Your task to perform on an android device: What is the news today? Image 0: 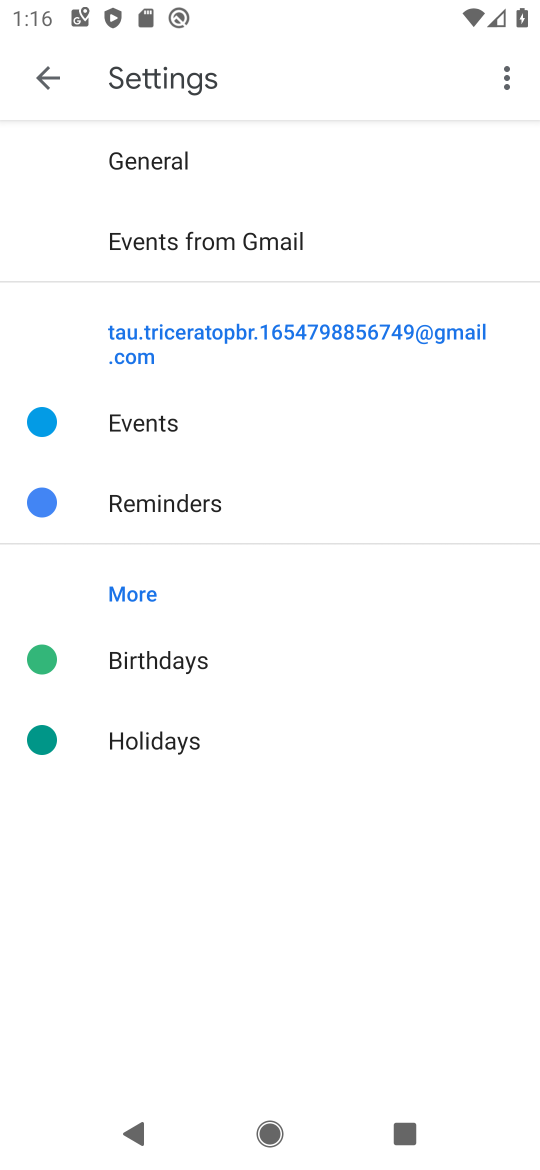
Step 0: press home button
Your task to perform on an android device: What is the news today? Image 1: 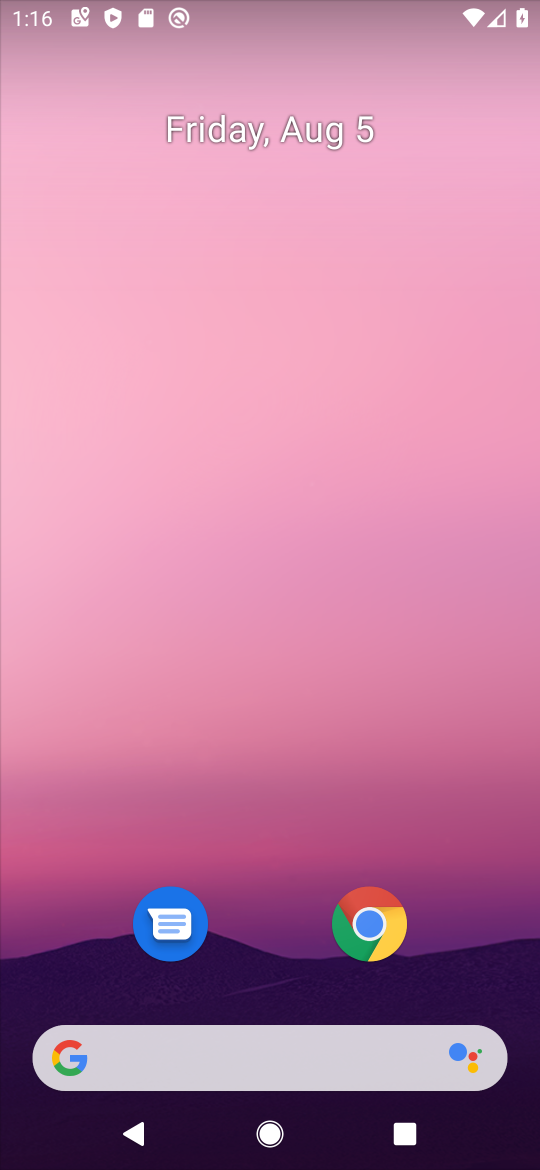
Step 1: drag from (235, 1048) to (292, 244)
Your task to perform on an android device: What is the news today? Image 2: 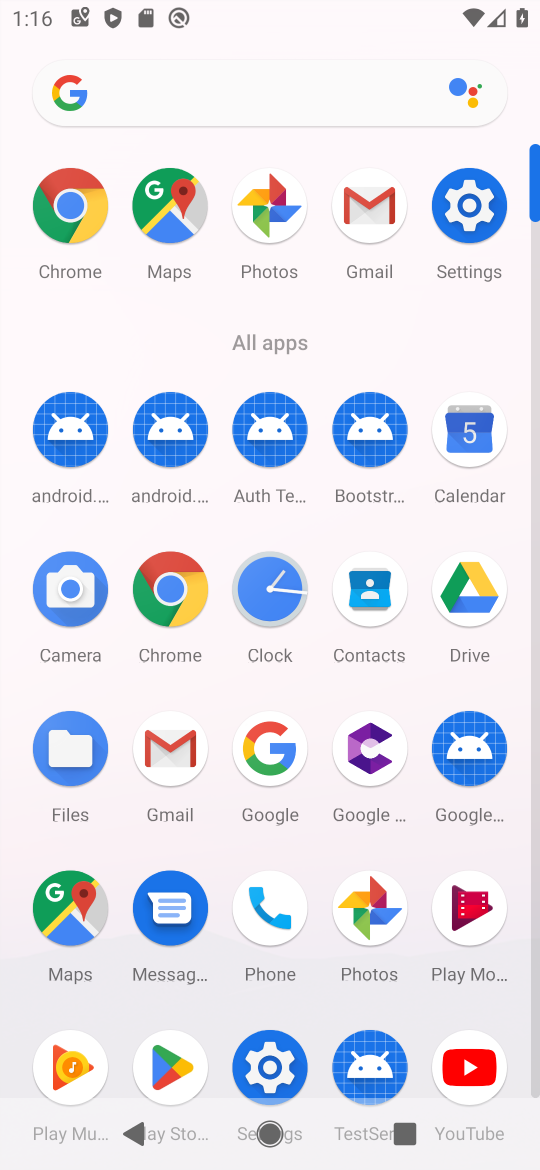
Step 2: click (266, 747)
Your task to perform on an android device: What is the news today? Image 3: 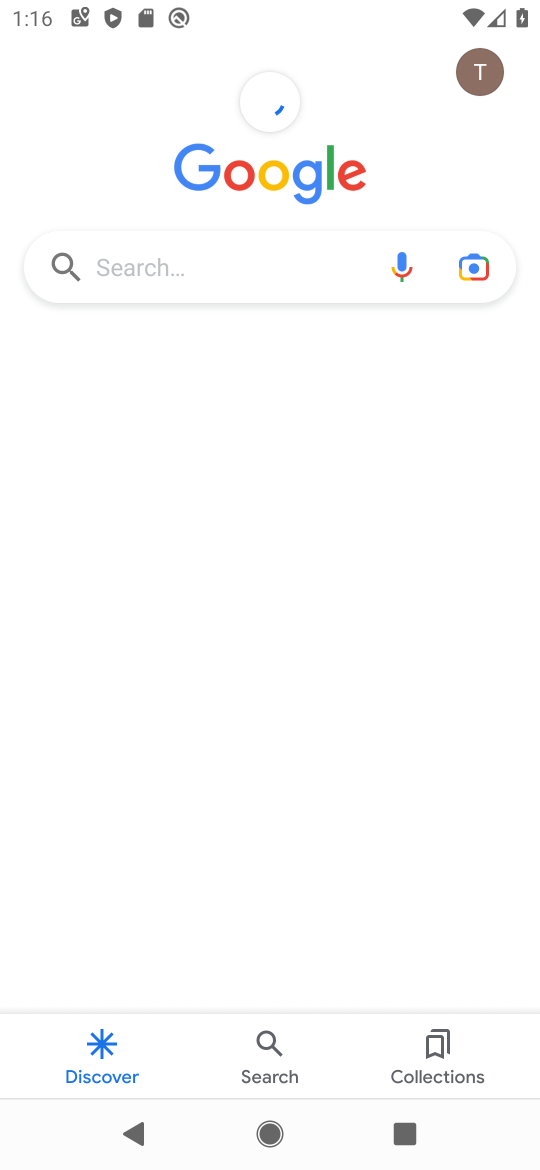
Step 3: click (281, 256)
Your task to perform on an android device: What is the news today? Image 4: 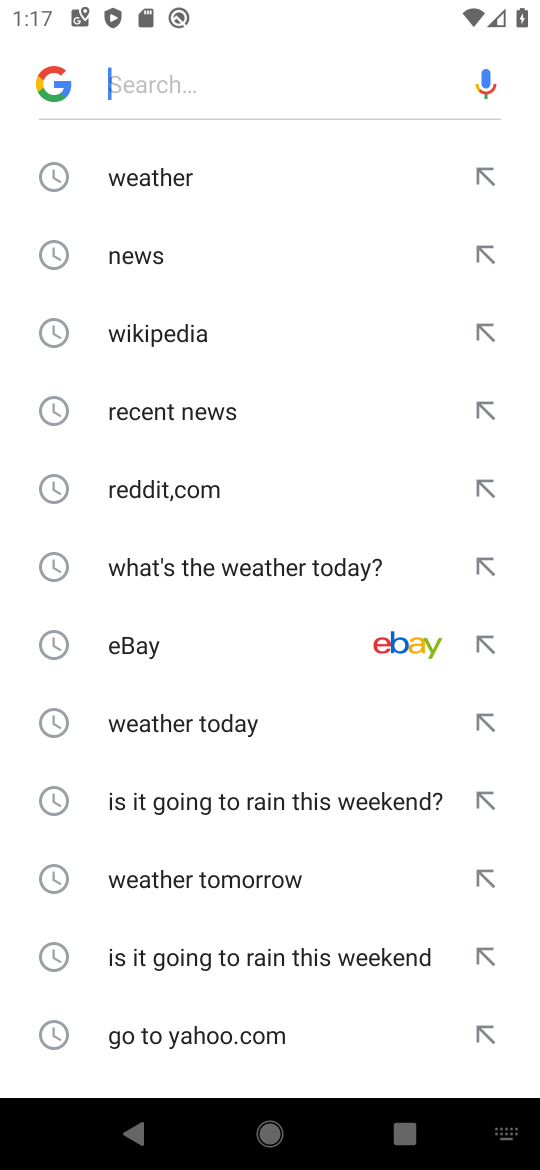
Step 4: type "news today"
Your task to perform on an android device: What is the news today? Image 5: 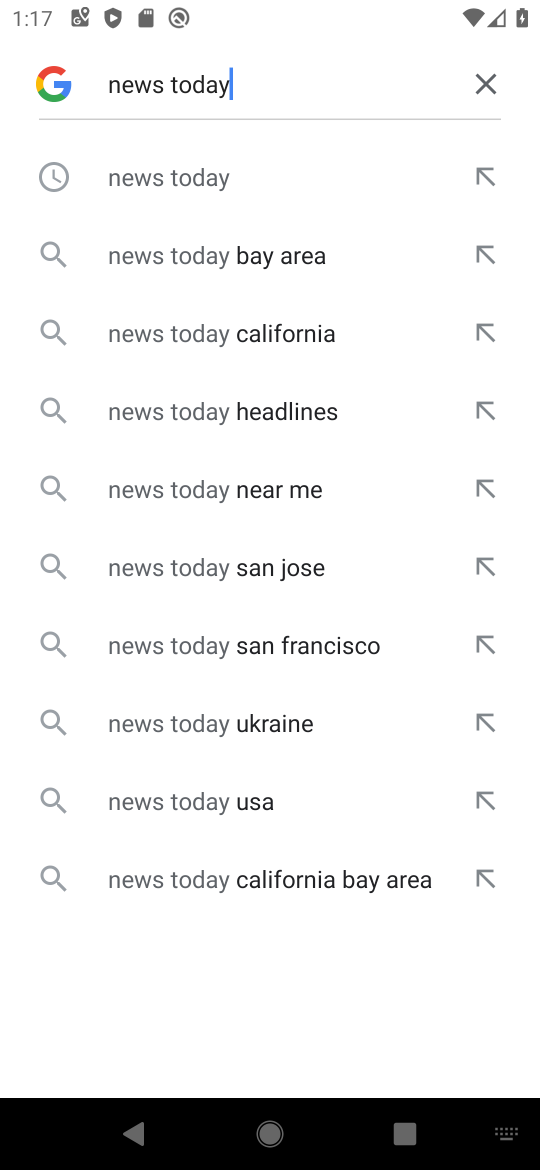
Step 5: click (195, 182)
Your task to perform on an android device: What is the news today? Image 6: 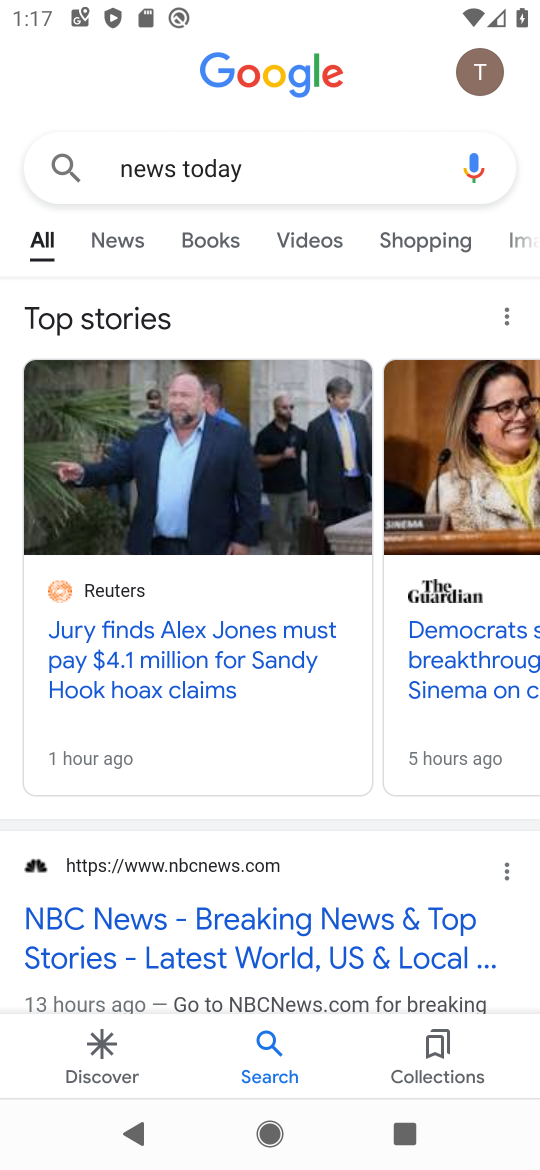
Step 6: click (236, 624)
Your task to perform on an android device: What is the news today? Image 7: 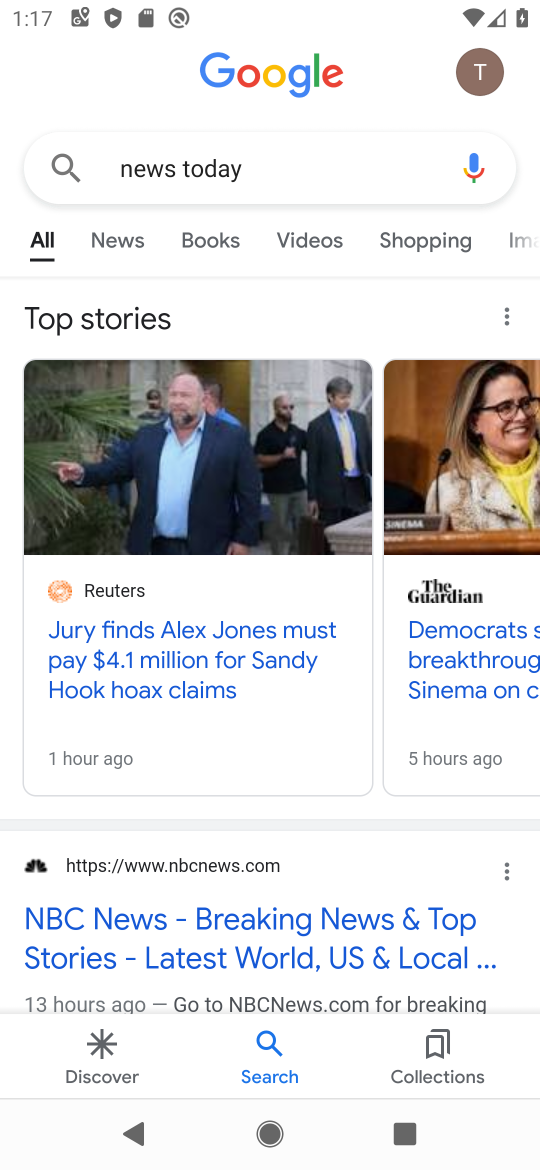
Step 7: click (204, 679)
Your task to perform on an android device: What is the news today? Image 8: 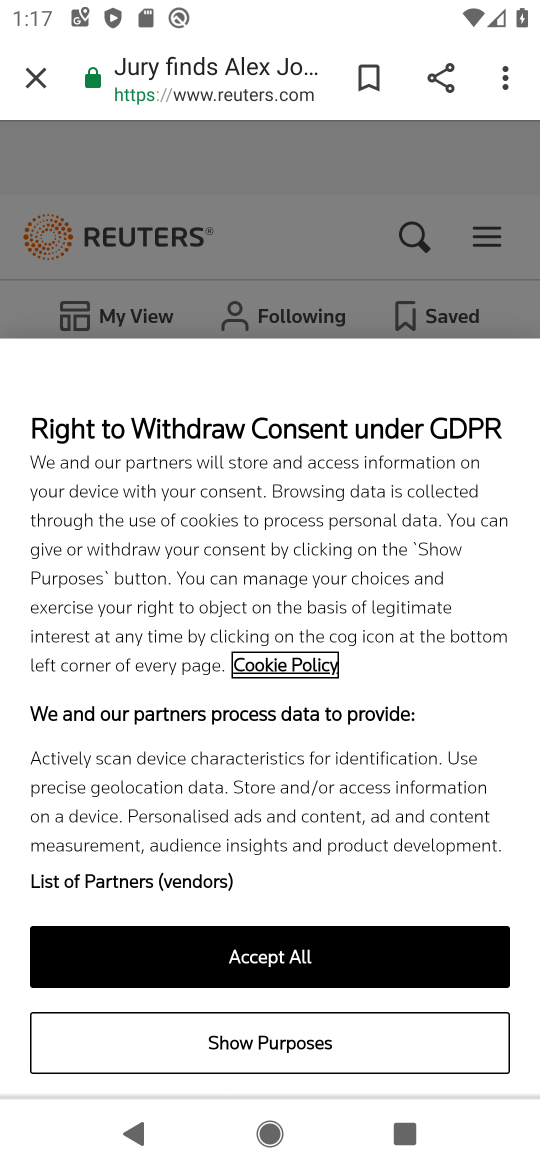
Step 8: click (275, 962)
Your task to perform on an android device: What is the news today? Image 9: 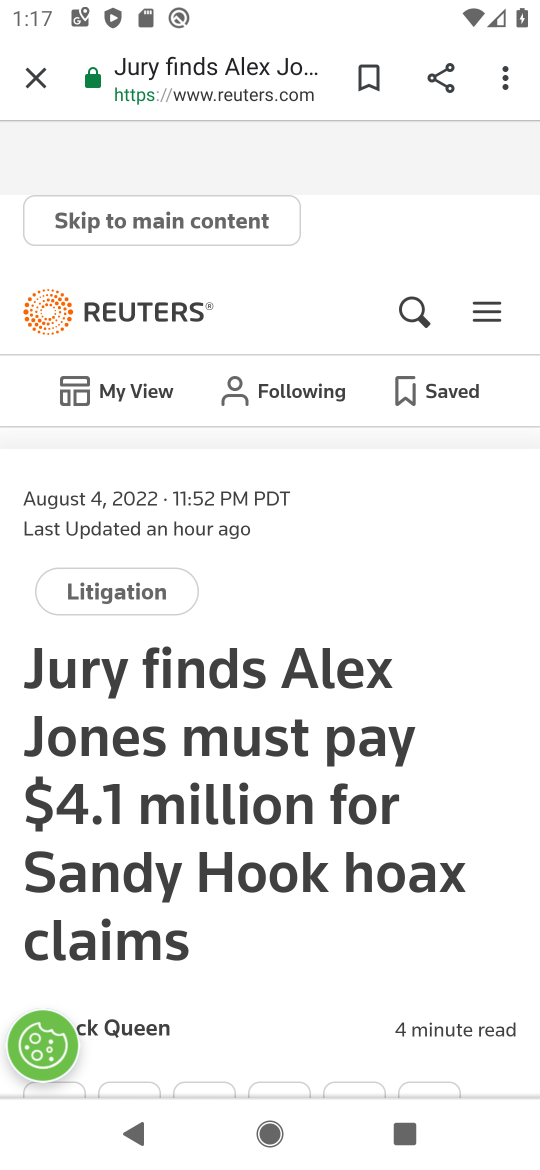
Step 9: task complete